Your task to perform on an android device: Go to CNN.com Image 0: 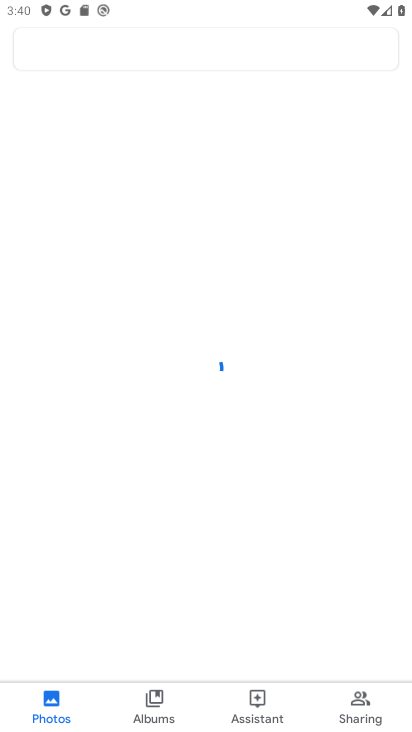
Step 0: press home button
Your task to perform on an android device: Go to CNN.com Image 1: 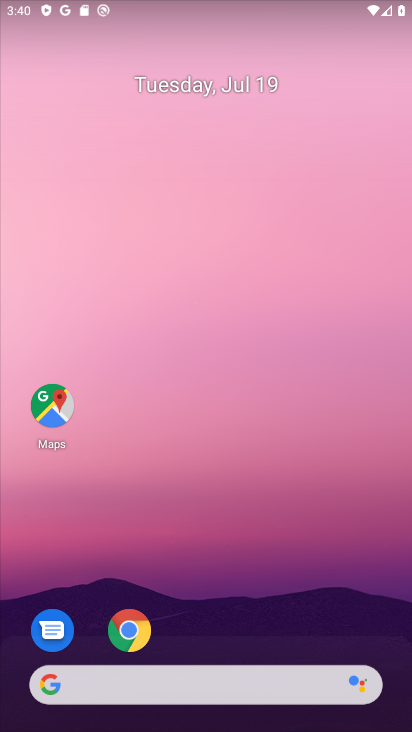
Step 1: click (133, 629)
Your task to perform on an android device: Go to CNN.com Image 2: 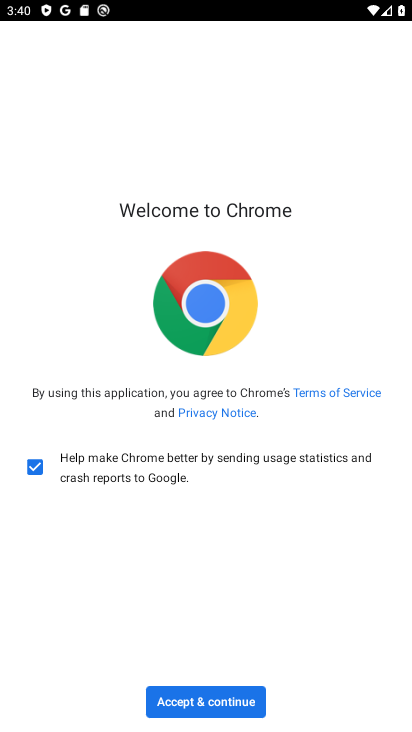
Step 2: click (236, 697)
Your task to perform on an android device: Go to CNN.com Image 3: 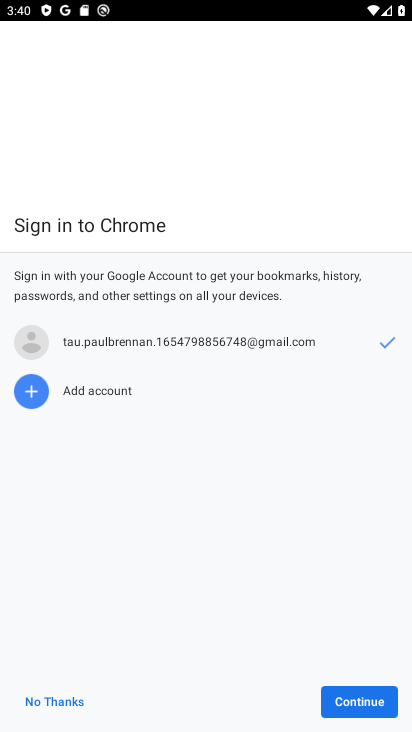
Step 3: click (347, 693)
Your task to perform on an android device: Go to CNN.com Image 4: 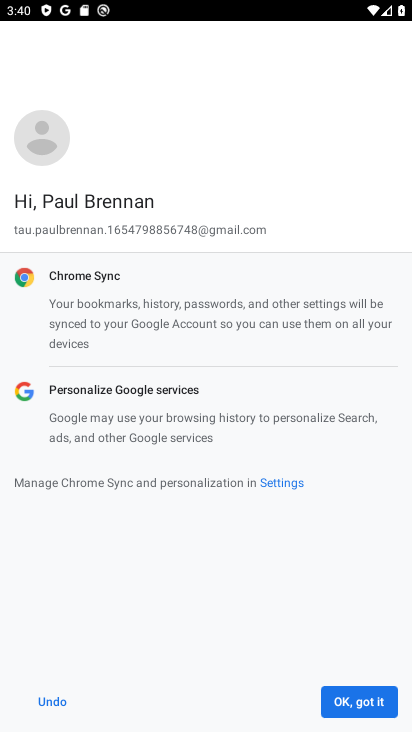
Step 4: click (376, 704)
Your task to perform on an android device: Go to CNN.com Image 5: 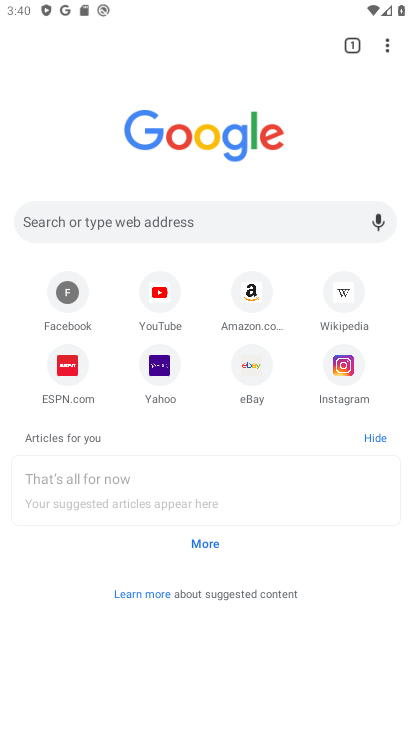
Step 5: click (157, 229)
Your task to perform on an android device: Go to CNN.com Image 6: 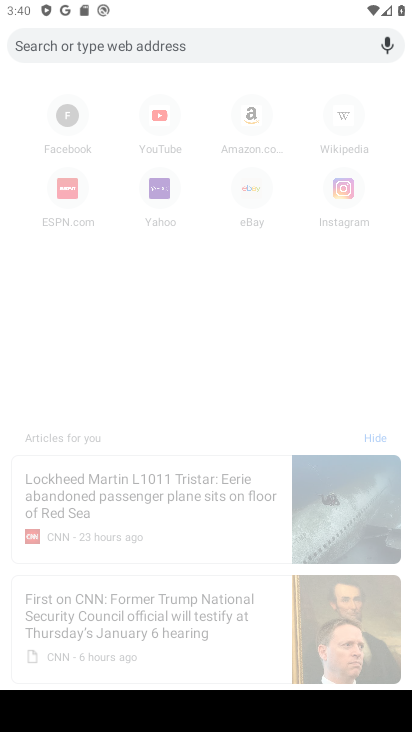
Step 6: type "CNN.com"
Your task to perform on an android device: Go to CNN.com Image 7: 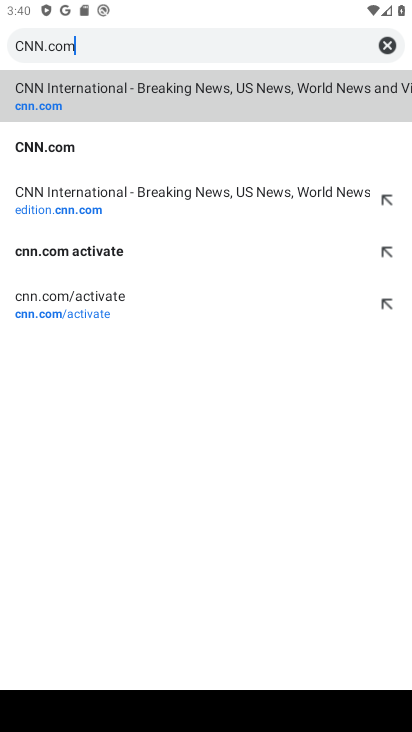
Step 7: click (132, 120)
Your task to perform on an android device: Go to CNN.com Image 8: 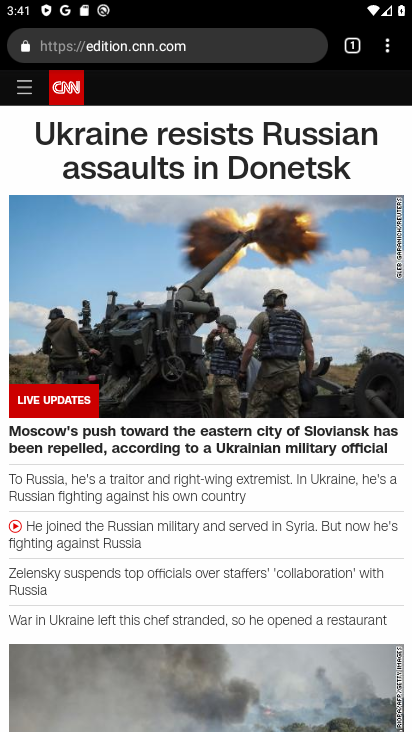
Step 8: task complete